Your task to perform on an android device: Open Maps and search for coffee Image 0: 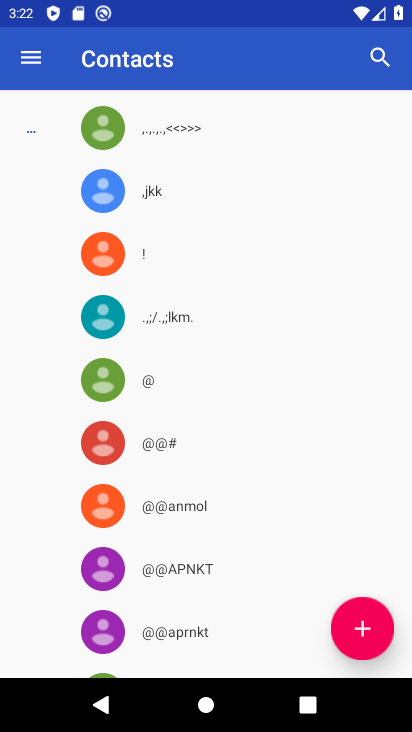
Step 0: press back button
Your task to perform on an android device: Open Maps and search for coffee Image 1: 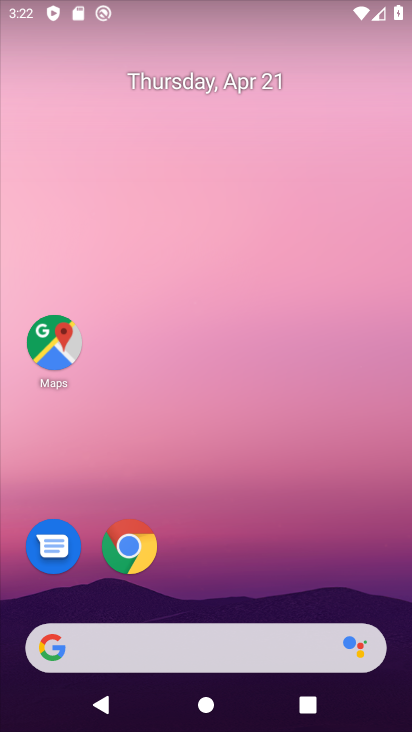
Step 1: click (52, 354)
Your task to perform on an android device: Open Maps and search for coffee Image 2: 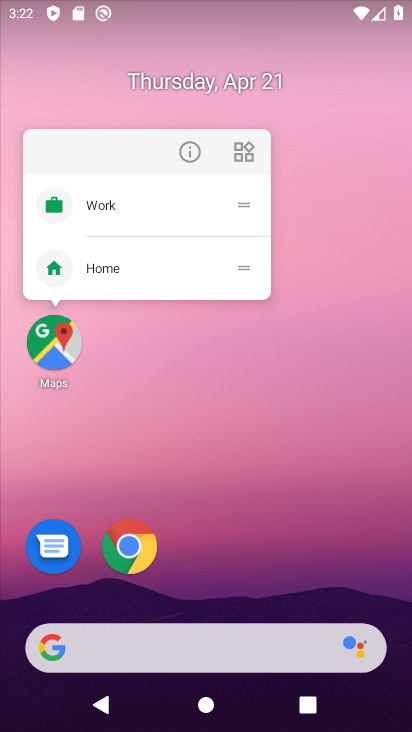
Step 2: click (63, 336)
Your task to perform on an android device: Open Maps and search for coffee Image 3: 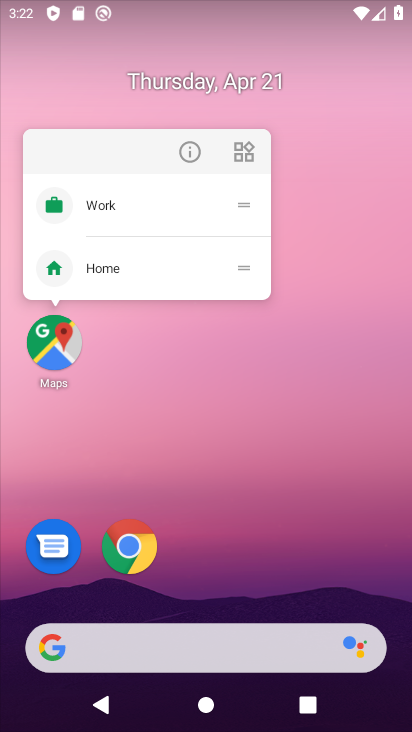
Step 3: click (63, 336)
Your task to perform on an android device: Open Maps and search for coffee Image 4: 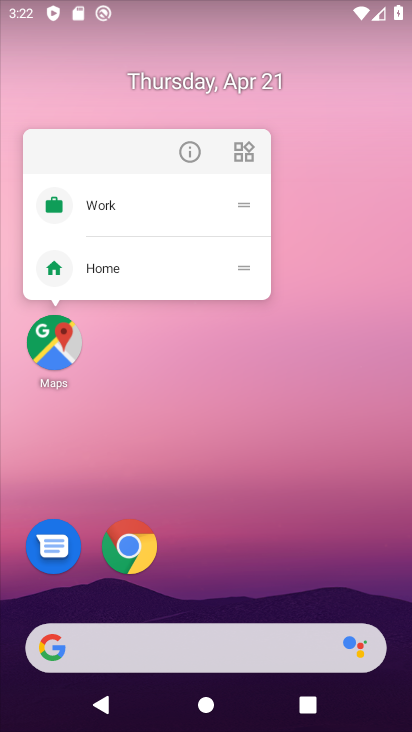
Step 4: click (59, 340)
Your task to perform on an android device: Open Maps and search for coffee Image 5: 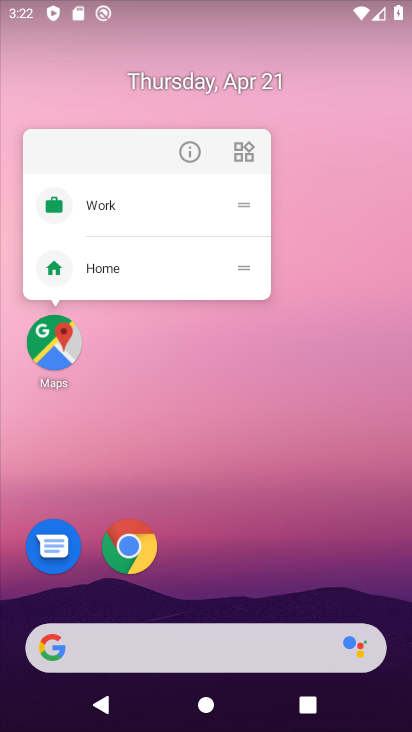
Step 5: click (60, 340)
Your task to perform on an android device: Open Maps and search for coffee Image 6: 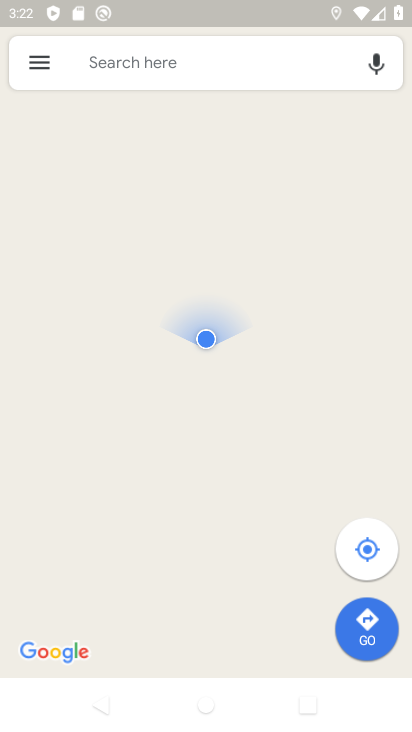
Step 6: click (190, 73)
Your task to perform on an android device: Open Maps and search for coffee Image 7: 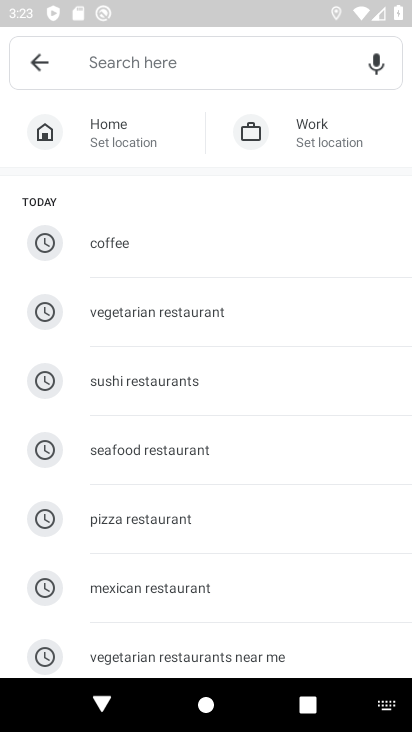
Step 7: type "Coffee "
Your task to perform on an android device: Open Maps and search for coffee Image 8: 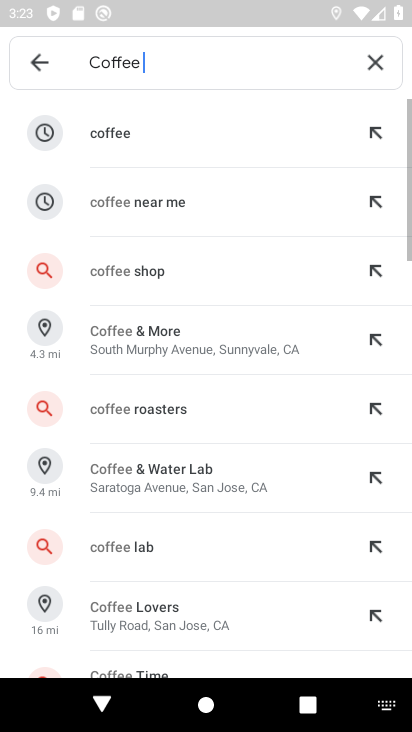
Step 8: click (149, 135)
Your task to perform on an android device: Open Maps and search for coffee Image 9: 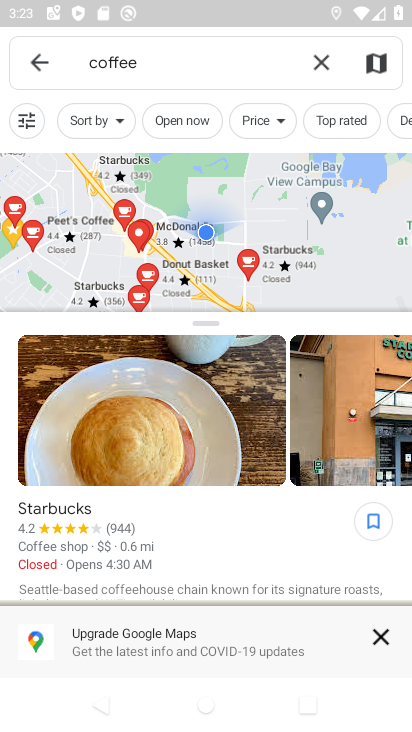
Step 9: click (384, 631)
Your task to perform on an android device: Open Maps and search for coffee Image 10: 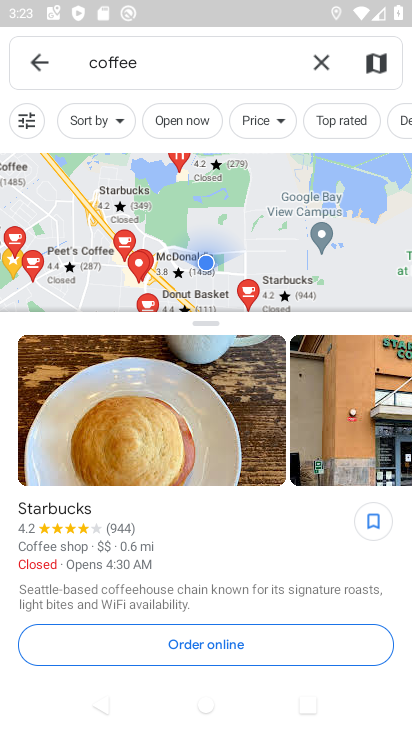
Step 10: task complete